Your task to perform on an android device: turn off translation in the chrome app Image 0: 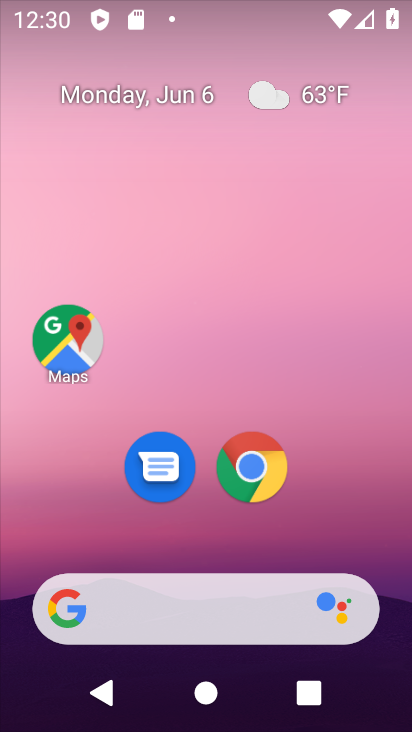
Step 0: click (393, 622)
Your task to perform on an android device: turn off translation in the chrome app Image 1: 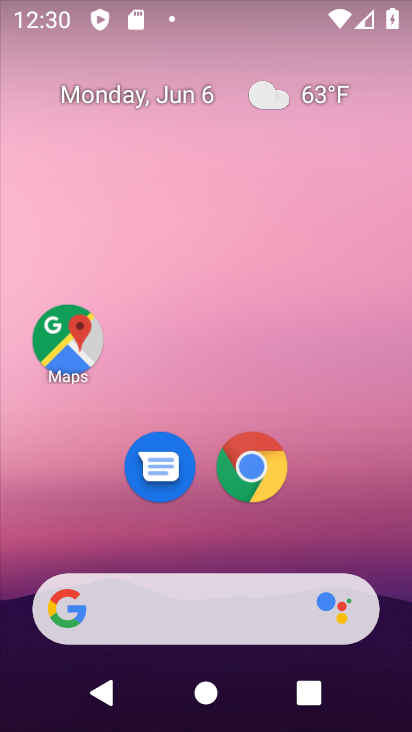
Step 1: click (227, 99)
Your task to perform on an android device: turn off translation in the chrome app Image 2: 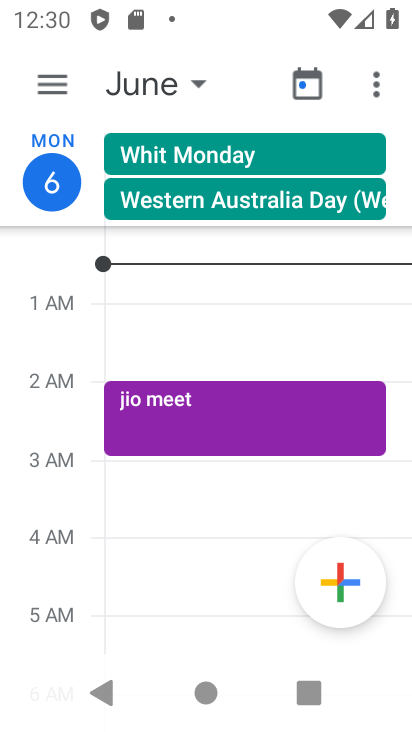
Step 2: press home button
Your task to perform on an android device: turn off translation in the chrome app Image 3: 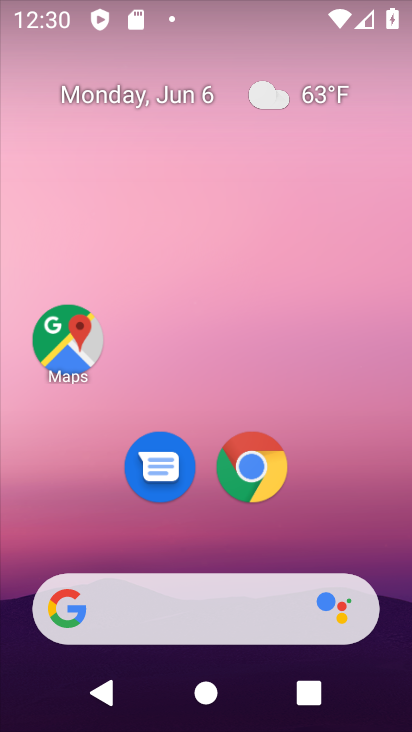
Step 3: drag from (394, 614) to (254, 79)
Your task to perform on an android device: turn off translation in the chrome app Image 4: 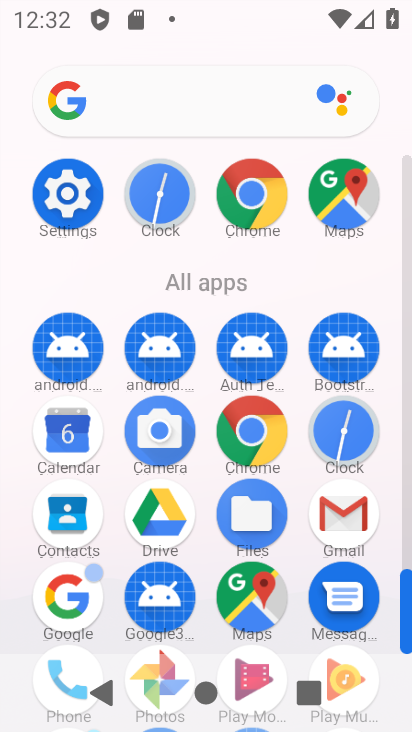
Step 4: click (236, 418)
Your task to perform on an android device: turn off translation in the chrome app Image 5: 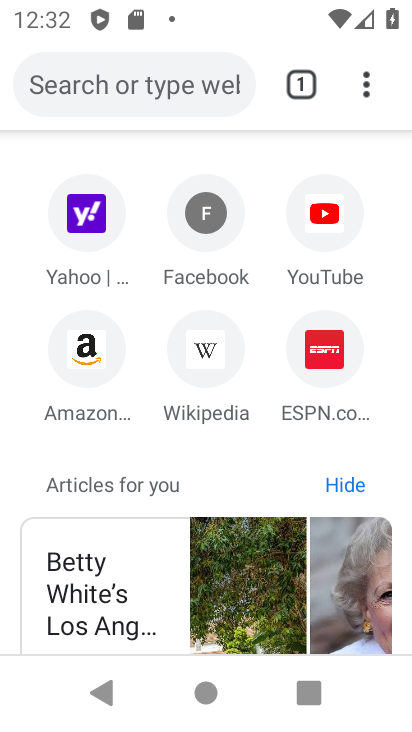
Step 5: click (372, 84)
Your task to perform on an android device: turn off translation in the chrome app Image 6: 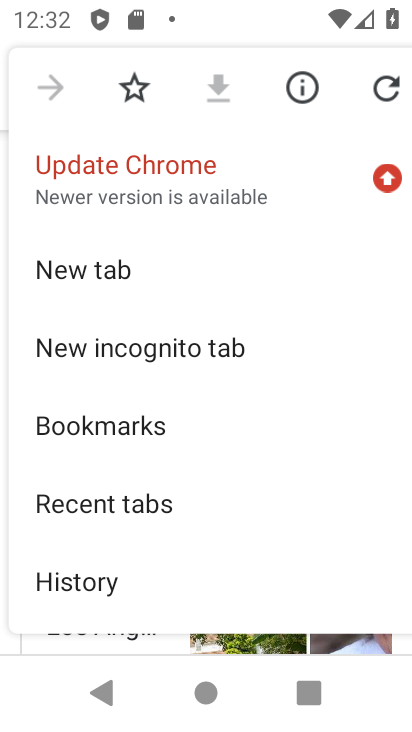
Step 6: drag from (113, 587) to (250, 93)
Your task to perform on an android device: turn off translation in the chrome app Image 7: 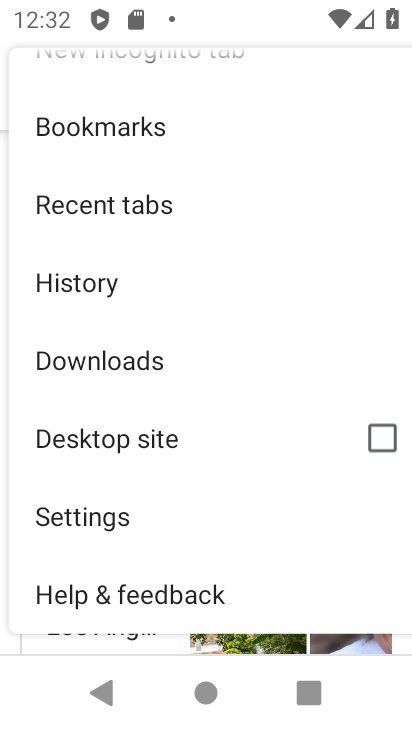
Step 7: click (146, 526)
Your task to perform on an android device: turn off translation in the chrome app Image 8: 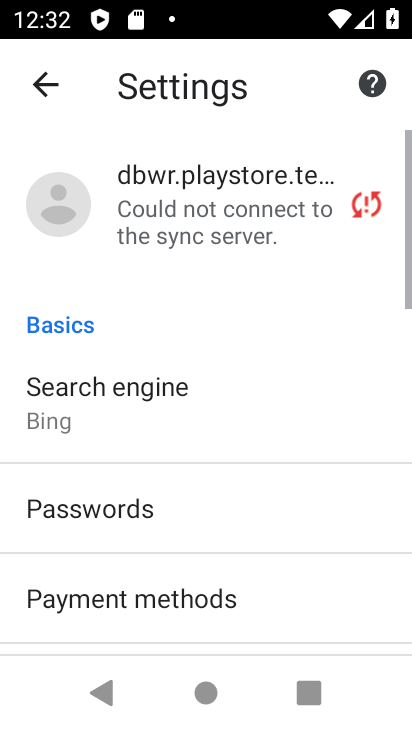
Step 8: drag from (178, 611) to (282, 71)
Your task to perform on an android device: turn off translation in the chrome app Image 9: 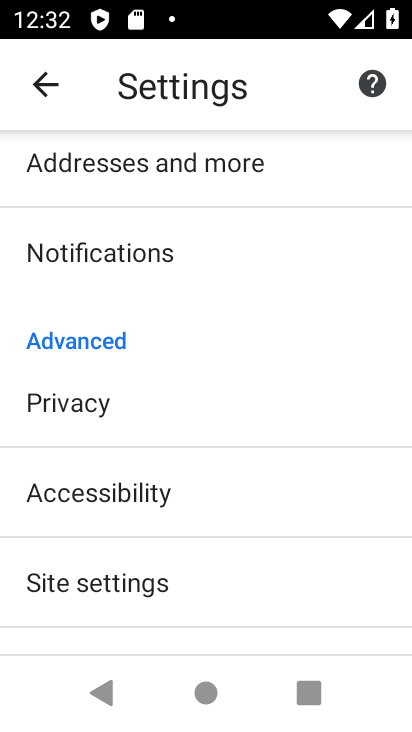
Step 9: drag from (107, 571) to (226, 131)
Your task to perform on an android device: turn off translation in the chrome app Image 10: 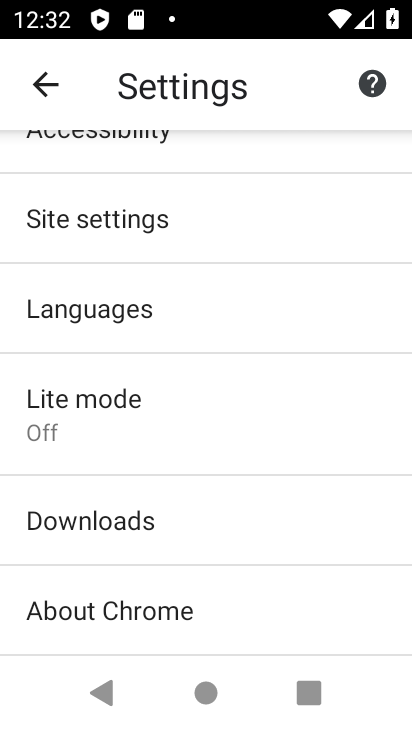
Step 10: click (333, 321)
Your task to perform on an android device: turn off translation in the chrome app Image 11: 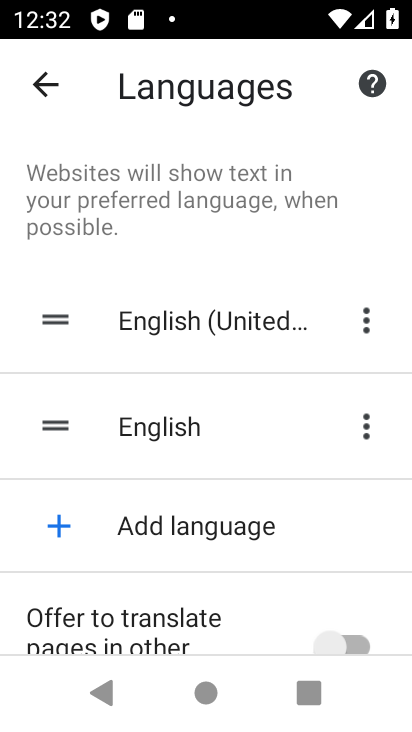
Step 11: task complete